Your task to perform on an android device: turn on wifi Image 0: 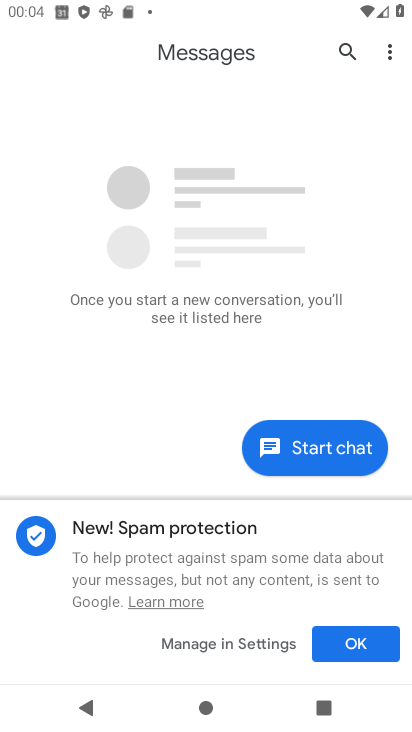
Step 0: press back button
Your task to perform on an android device: turn on wifi Image 1: 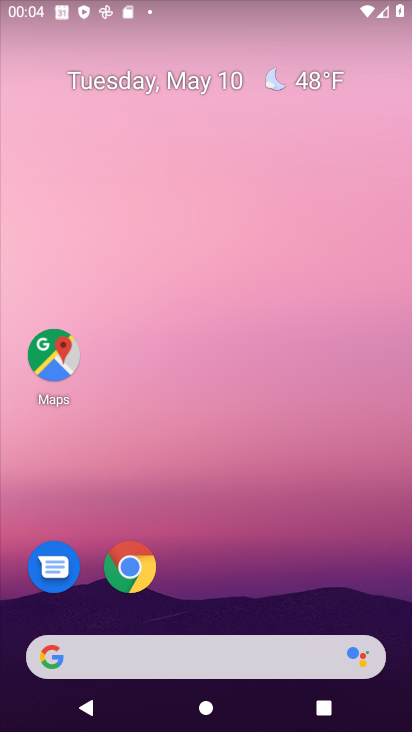
Step 1: drag from (230, 587) to (187, 116)
Your task to perform on an android device: turn on wifi Image 2: 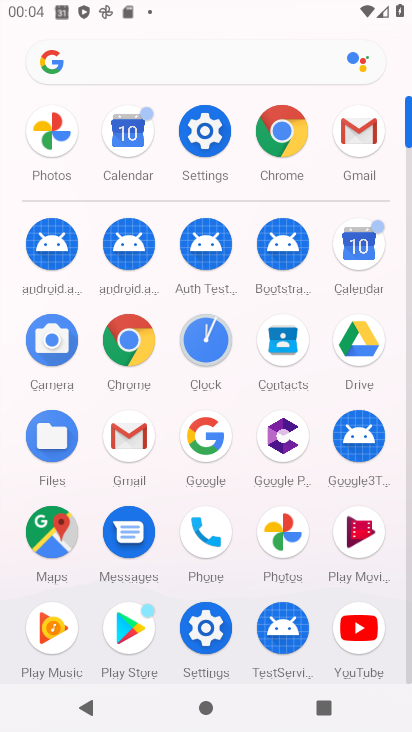
Step 2: click (202, 132)
Your task to perform on an android device: turn on wifi Image 3: 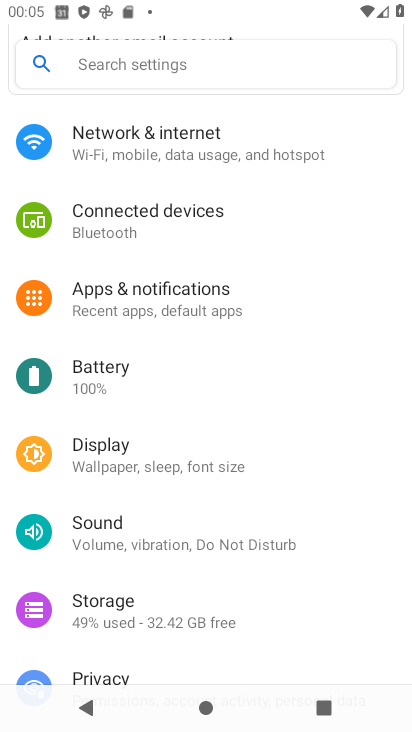
Step 3: click (157, 140)
Your task to perform on an android device: turn on wifi Image 4: 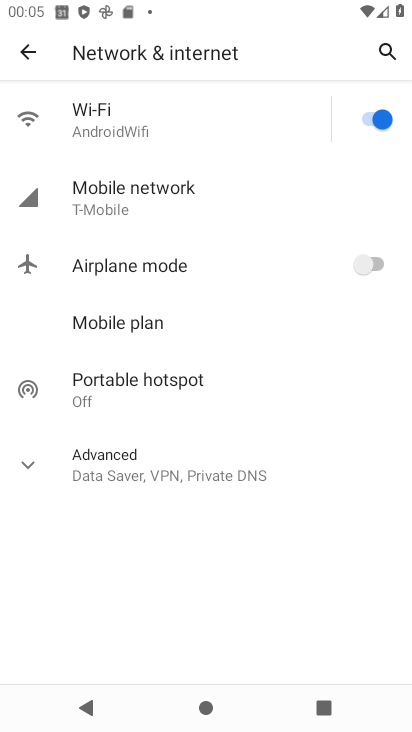
Step 4: task complete